Your task to perform on an android device: Open Google Chrome Image 0: 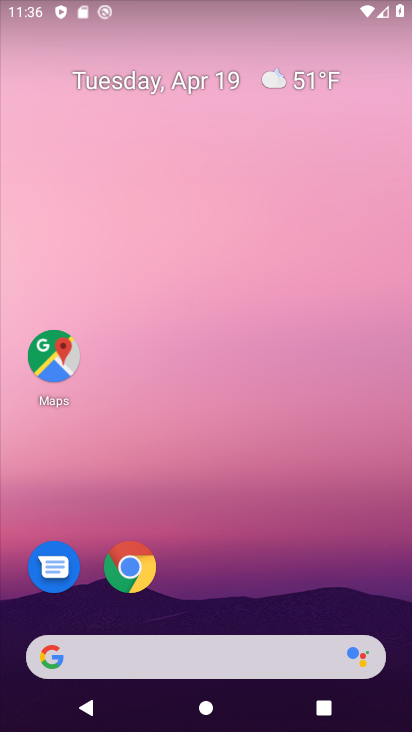
Step 0: click (128, 566)
Your task to perform on an android device: Open Google Chrome Image 1: 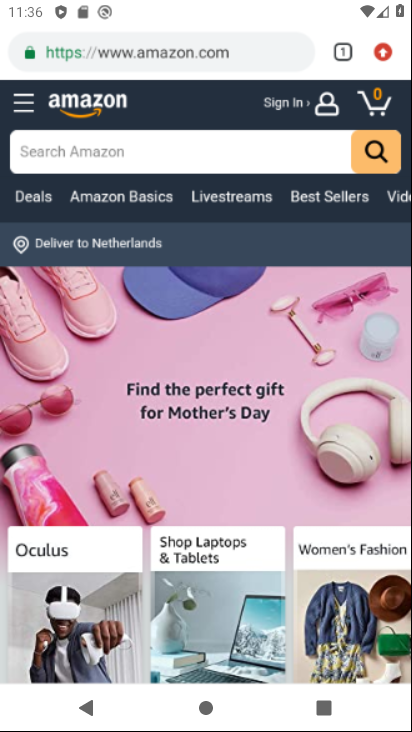
Step 1: task complete